Your task to perform on an android device: Go to accessibility settings Image 0: 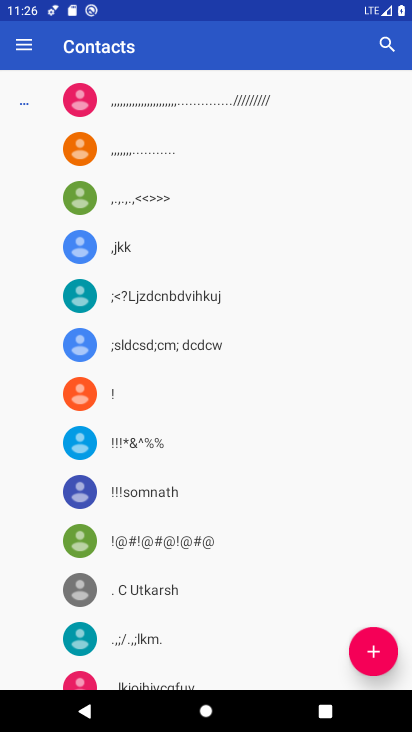
Step 0: press home button
Your task to perform on an android device: Go to accessibility settings Image 1: 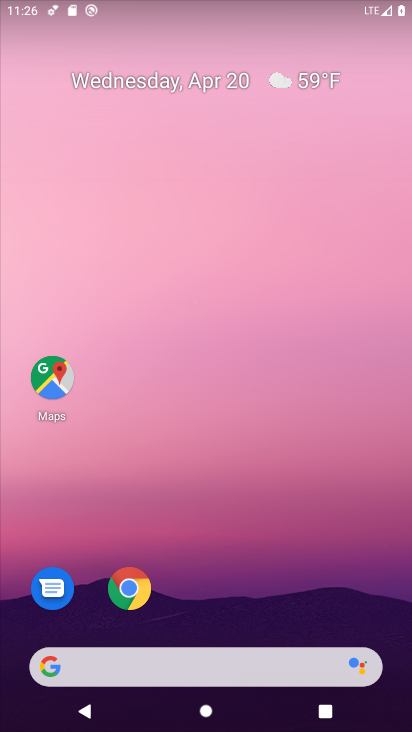
Step 1: drag from (187, 562) to (302, 15)
Your task to perform on an android device: Go to accessibility settings Image 2: 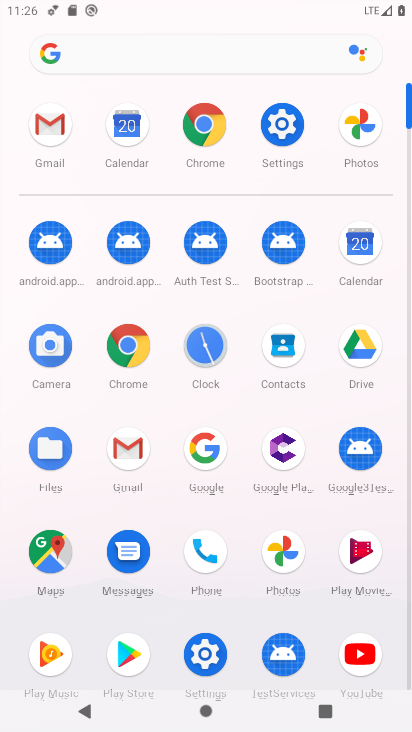
Step 2: click (282, 127)
Your task to perform on an android device: Go to accessibility settings Image 3: 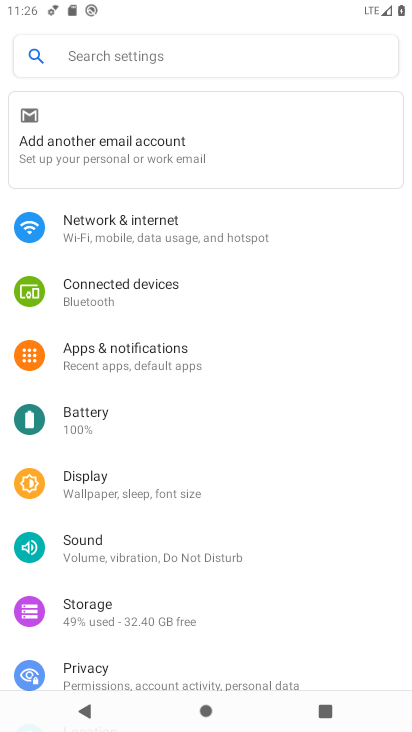
Step 3: drag from (257, 623) to (253, 128)
Your task to perform on an android device: Go to accessibility settings Image 4: 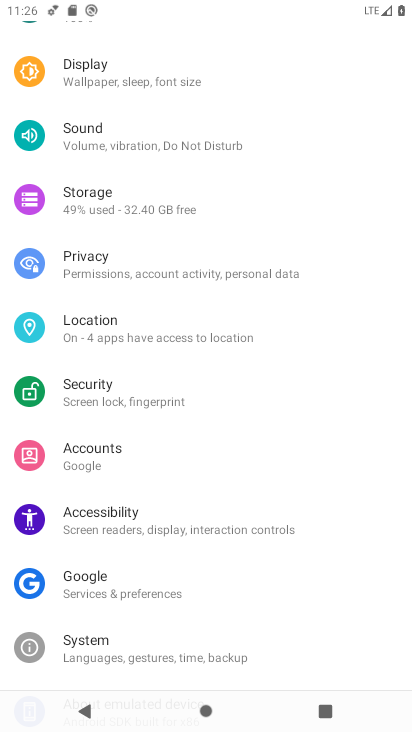
Step 4: click (95, 514)
Your task to perform on an android device: Go to accessibility settings Image 5: 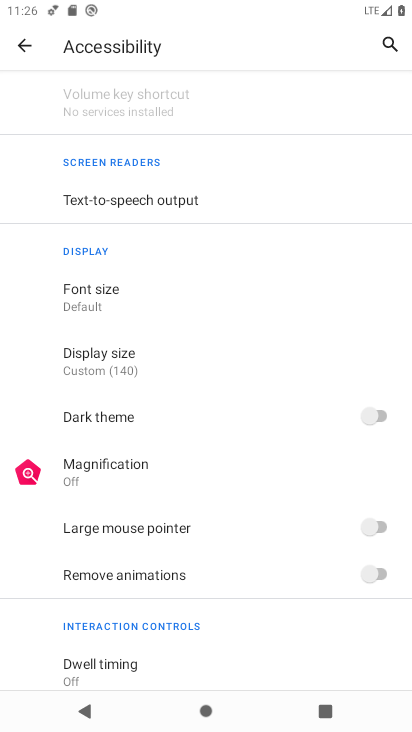
Step 5: task complete